Your task to perform on an android device: Open the calendar app, open the side menu, and click the "Day" option Image 0: 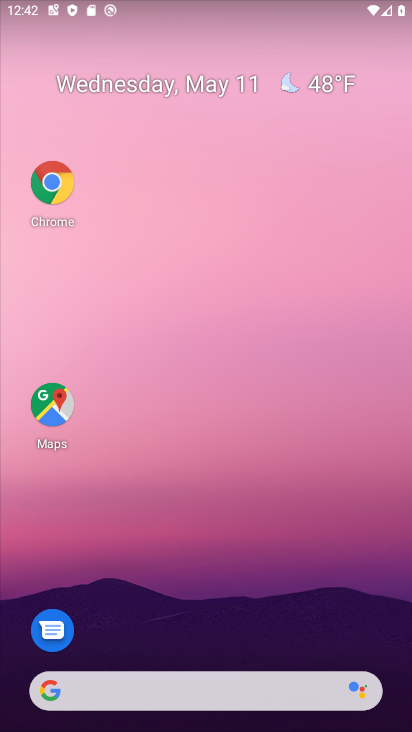
Step 0: drag from (226, 662) to (101, 0)
Your task to perform on an android device: Open the calendar app, open the side menu, and click the "Day" option Image 1: 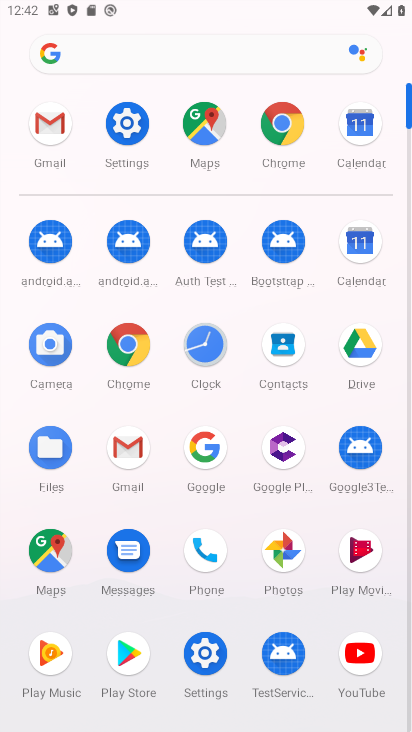
Step 1: click (362, 252)
Your task to perform on an android device: Open the calendar app, open the side menu, and click the "Day" option Image 2: 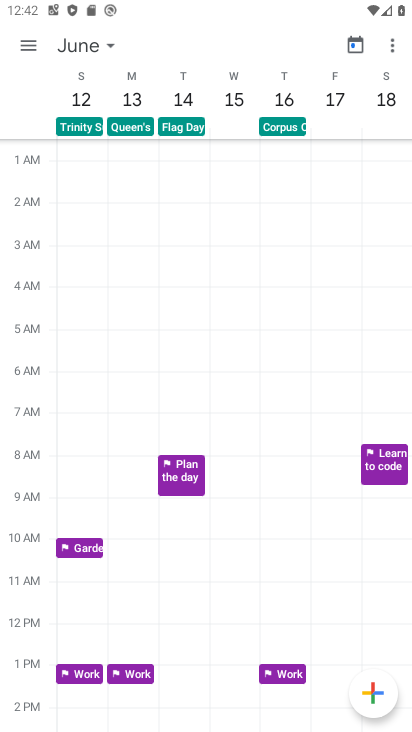
Step 2: click (15, 39)
Your task to perform on an android device: Open the calendar app, open the side menu, and click the "Day" option Image 3: 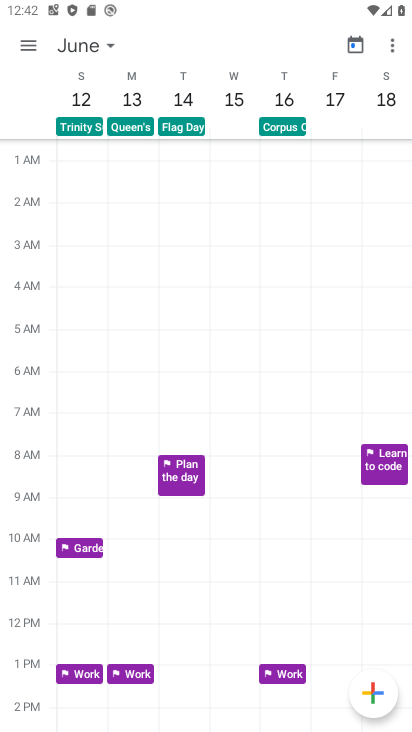
Step 3: click (32, 44)
Your task to perform on an android device: Open the calendar app, open the side menu, and click the "Day" option Image 4: 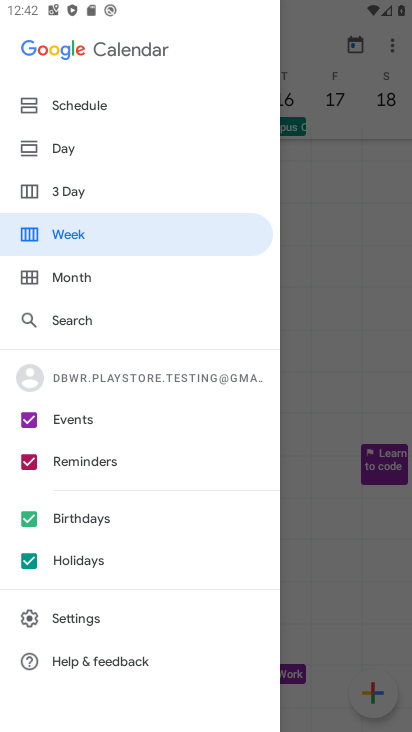
Step 4: click (65, 151)
Your task to perform on an android device: Open the calendar app, open the side menu, and click the "Day" option Image 5: 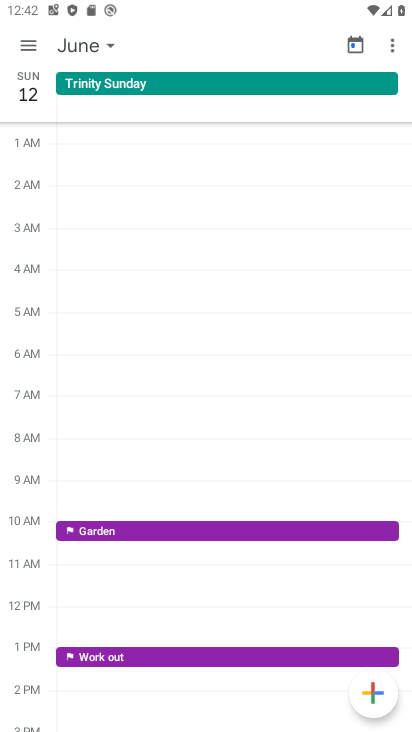
Step 5: task complete